Your task to perform on an android device: toggle show notifications on the lock screen Image 0: 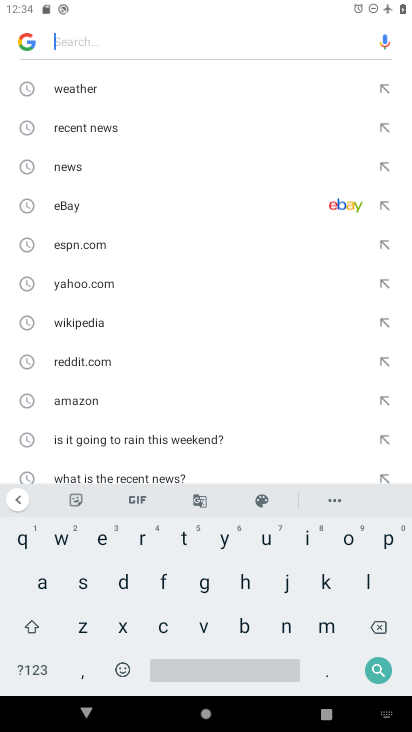
Step 0: press home button
Your task to perform on an android device: toggle show notifications on the lock screen Image 1: 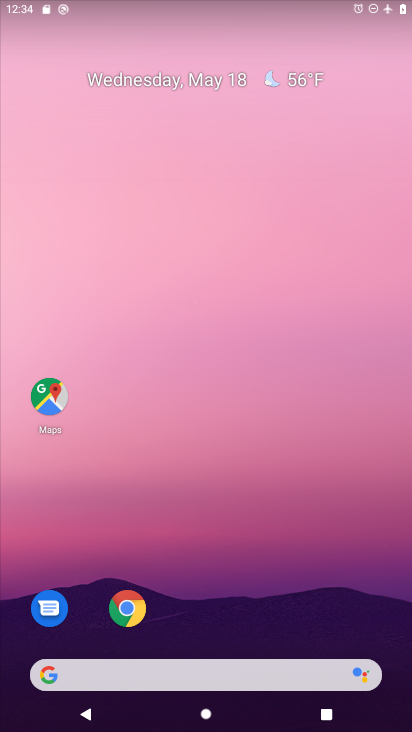
Step 1: drag from (227, 666) to (230, 314)
Your task to perform on an android device: toggle show notifications on the lock screen Image 2: 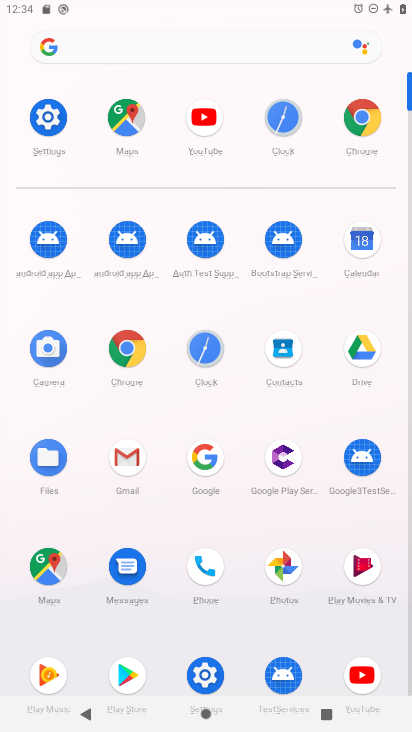
Step 2: click (37, 122)
Your task to perform on an android device: toggle show notifications on the lock screen Image 3: 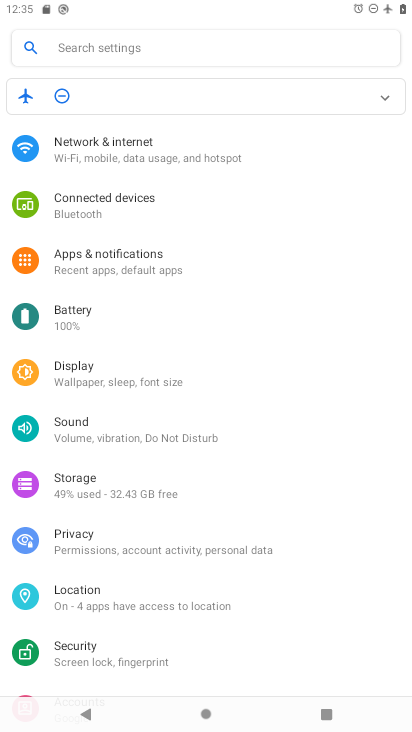
Step 3: click (164, 52)
Your task to perform on an android device: toggle show notifications on the lock screen Image 4: 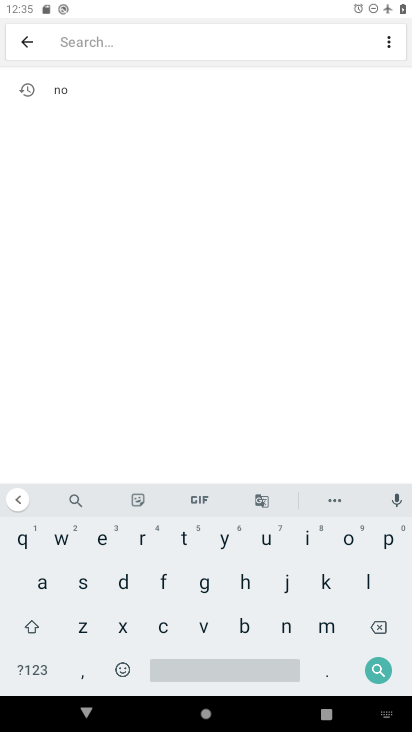
Step 4: click (287, 630)
Your task to perform on an android device: toggle show notifications on the lock screen Image 5: 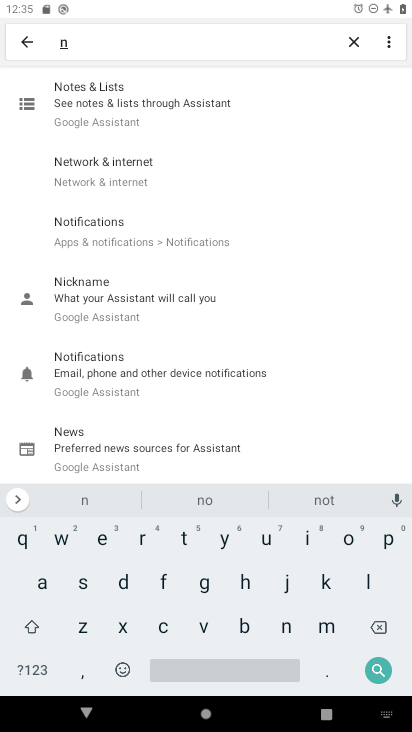
Step 5: click (342, 540)
Your task to perform on an android device: toggle show notifications on the lock screen Image 6: 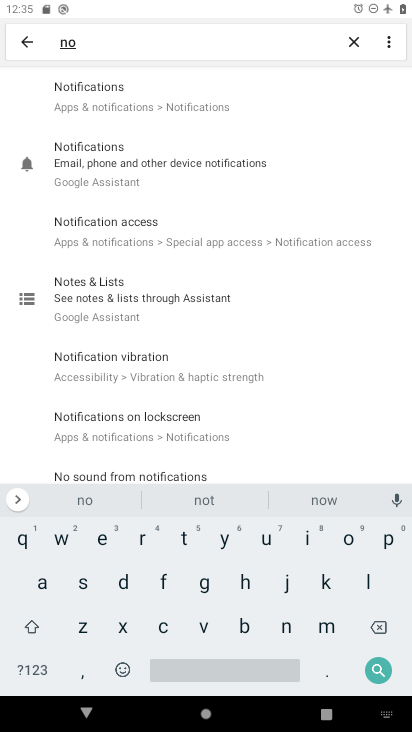
Step 6: click (119, 88)
Your task to perform on an android device: toggle show notifications on the lock screen Image 7: 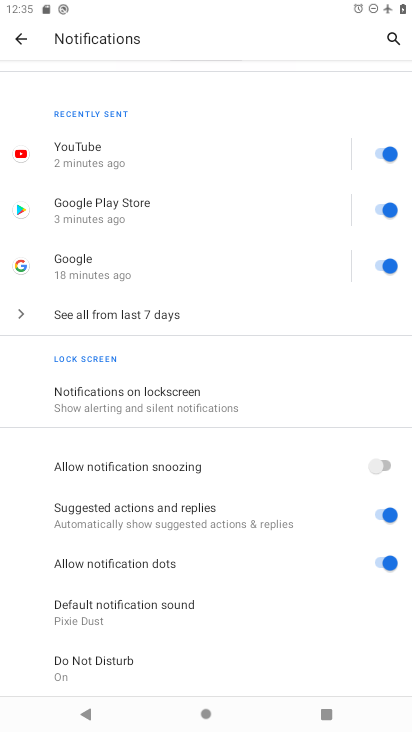
Step 7: click (115, 398)
Your task to perform on an android device: toggle show notifications on the lock screen Image 8: 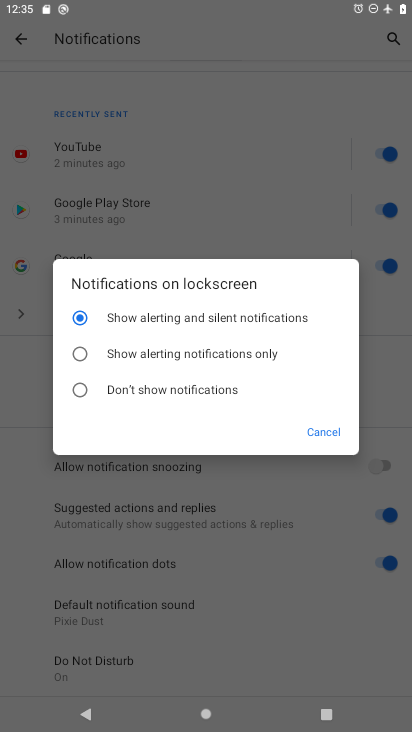
Step 8: task complete